Your task to perform on an android device: turn on location history Image 0: 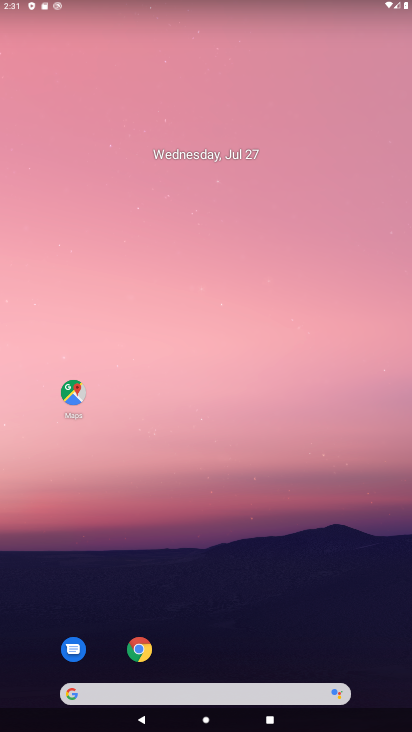
Step 0: drag from (302, 618) to (273, 24)
Your task to perform on an android device: turn on location history Image 1: 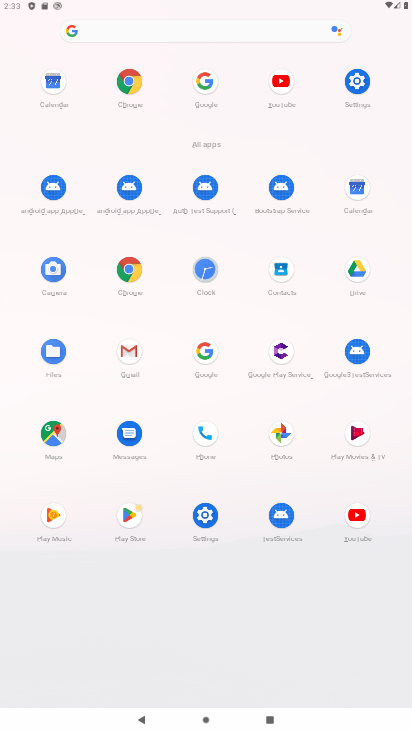
Step 1: click (196, 507)
Your task to perform on an android device: turn on location history Image 2: 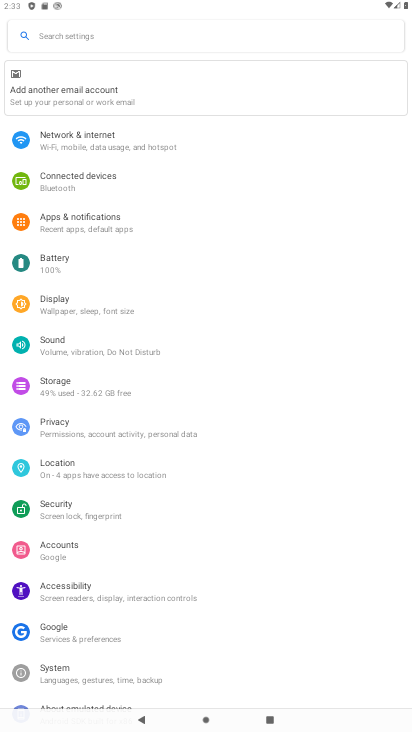
Step 2: click (54, 467)
Your task to perform on an android device: turn on location history Image 3: 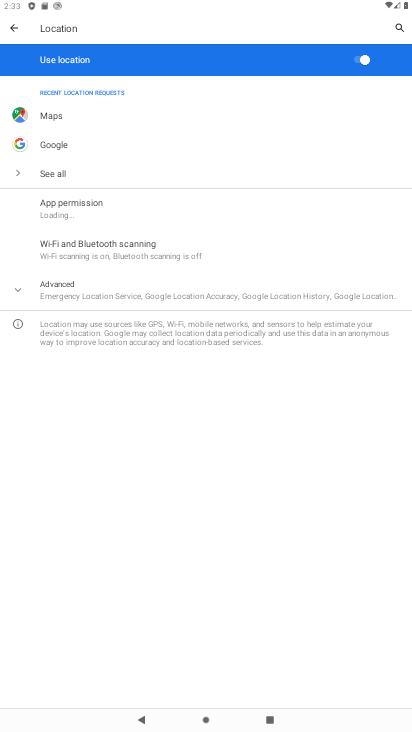
Step 3: click (135, 287)
Your task to perform on an android device: turn on location history Image 4: 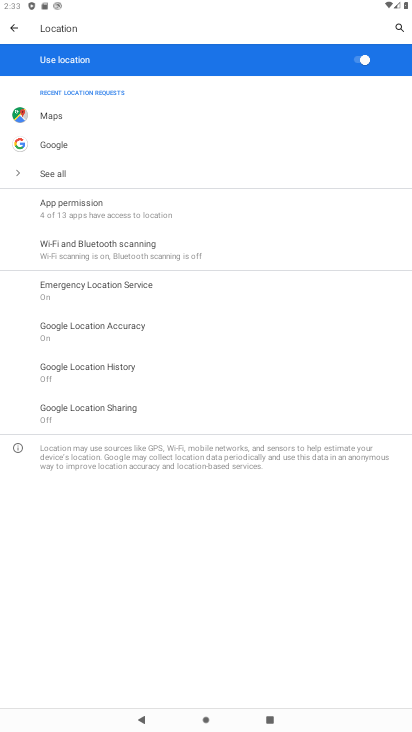
Step 4: click (97, 377)
Your task to perform on an android device: turn on location history Image 5: 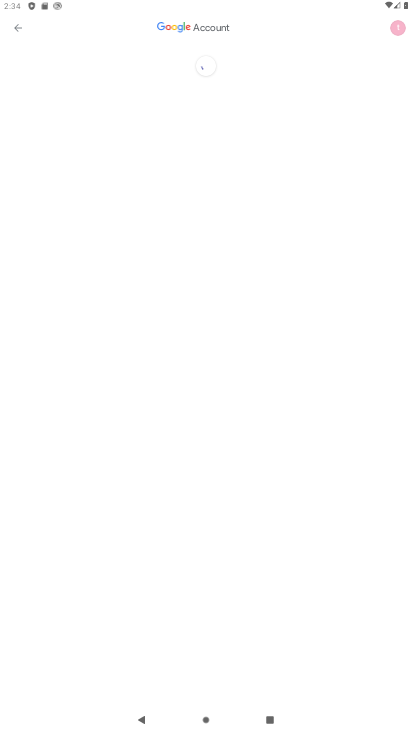
Step 5: task complete